Your task to perform on an android device: change notifications settings Image 0: 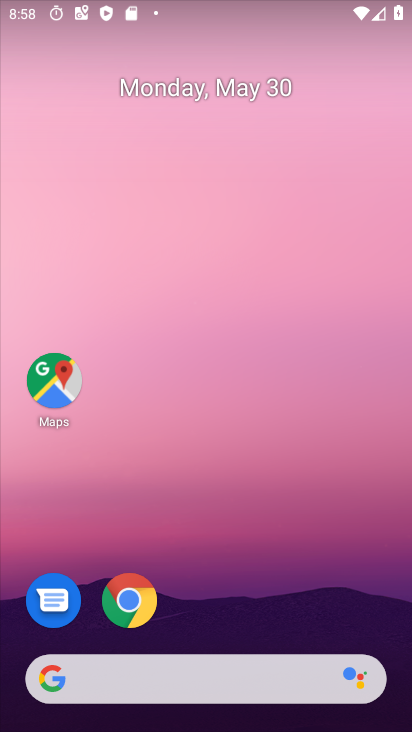
Step 0: drag from (234, 581) to (207, 27)
Your task to perform on an android device: change notifications settings Image 1: 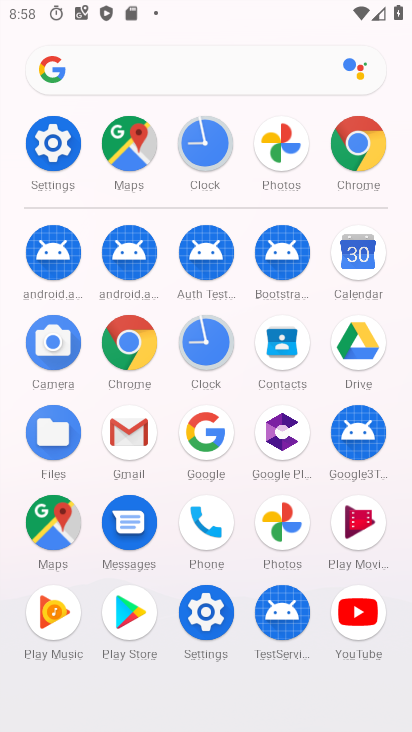
Step 1: drag from (10, 565) to (2, 268)
Your task to perform on an android device: change notifications settings Image 2: 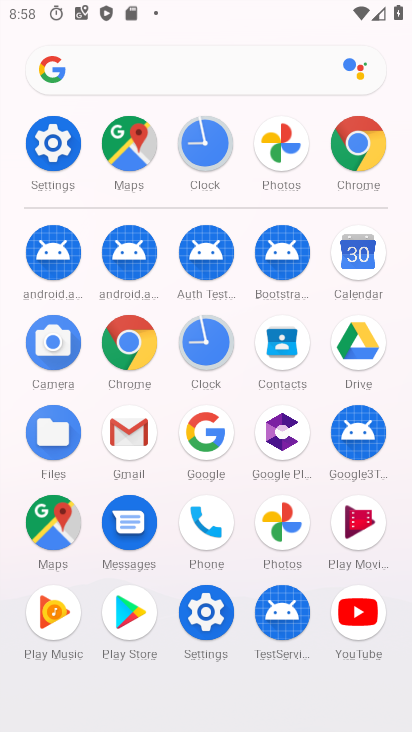
Step 2: click (201, 611)
Your task to perform on an android device: change notifications settings Image 3: 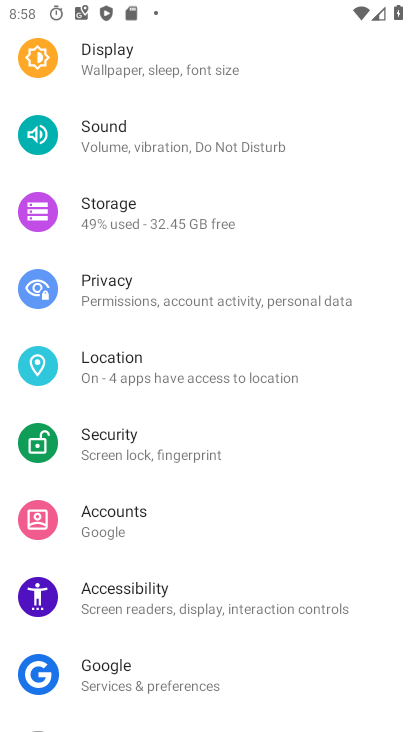
Step 3: drag from (207, 131) to (207, 589)
Your task to perform on an android device: change notifications settings Image 4: 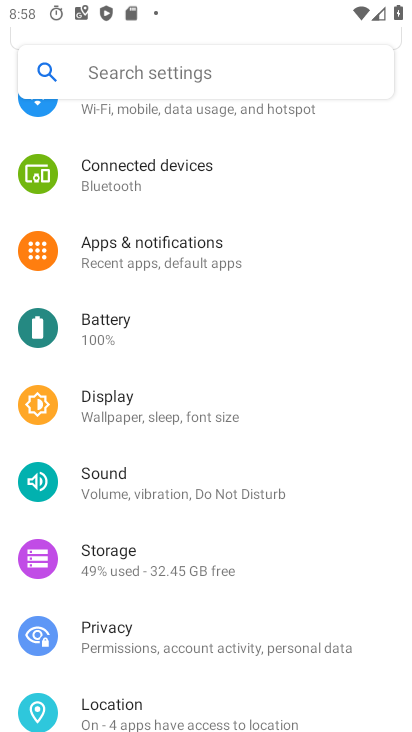
Step 4: click (178, 239)
Your task to perform on an android device: change notifications settings Image 5: 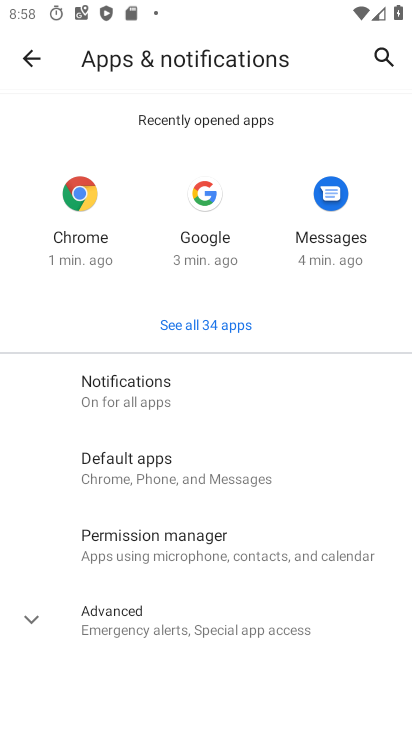
Step 5: click (32, 622)
Your task to perform on an android device: change notifications settings Image 6: 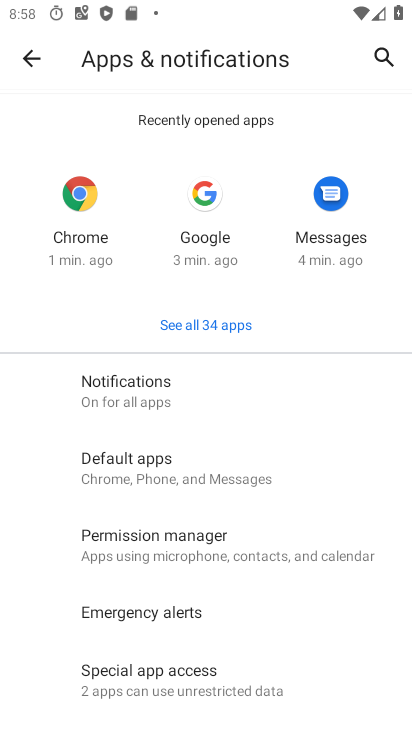
Step 6: drag from (256, 600) to (249, 188)
Your task to perform on an android device: change notifications settings Image 7: 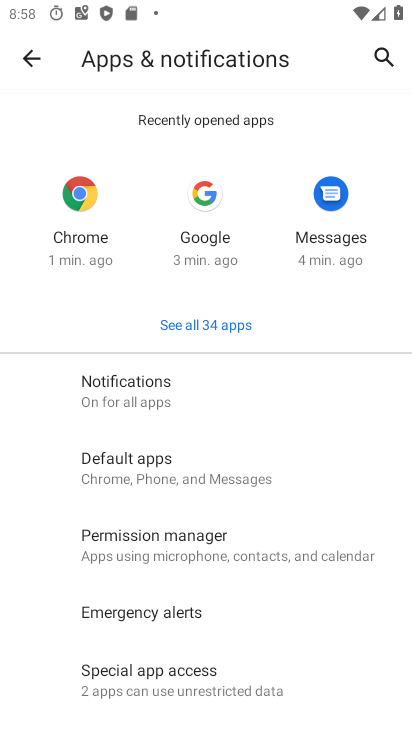
Step 7: click (189, 387)
Your task to perform on an android device: change notifications settings Image 8: 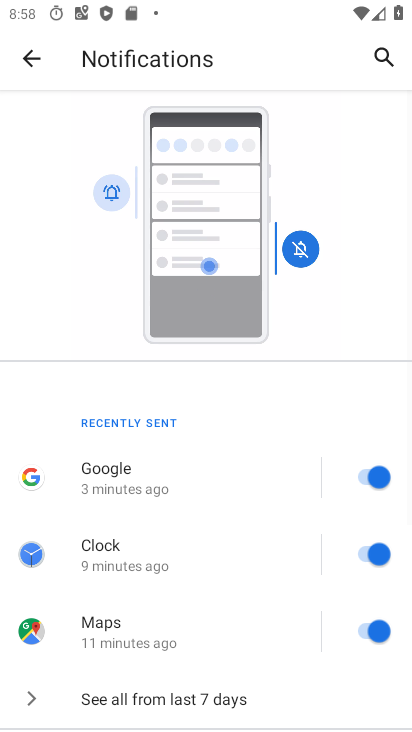
Step 8: drag from (205, 597) to (271, 124)
Your task to perform on an android device: change notifications settings Image 9: 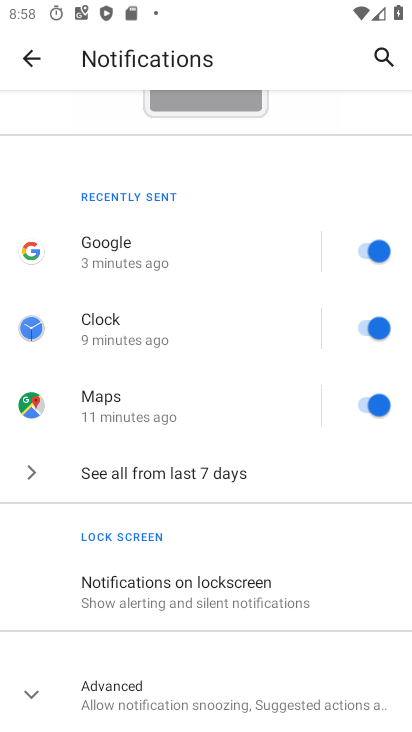
Step 9: click (23, 691)
Your task to perform on an android device: change notifications settings Image 10: 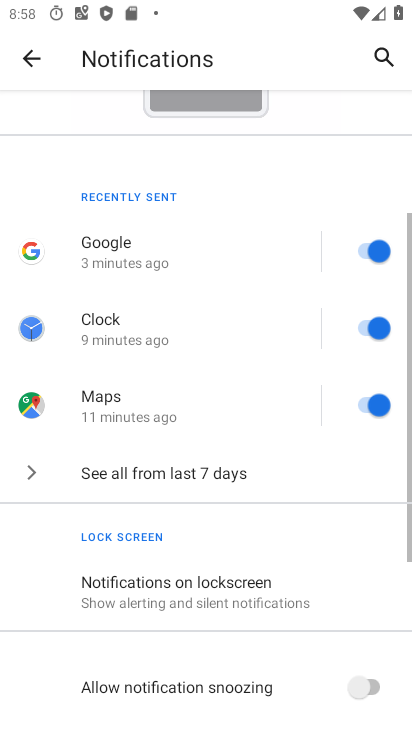
Step 10: task complete